Your task to perform on an android device: clear all cookies in the chrome app Image 0: 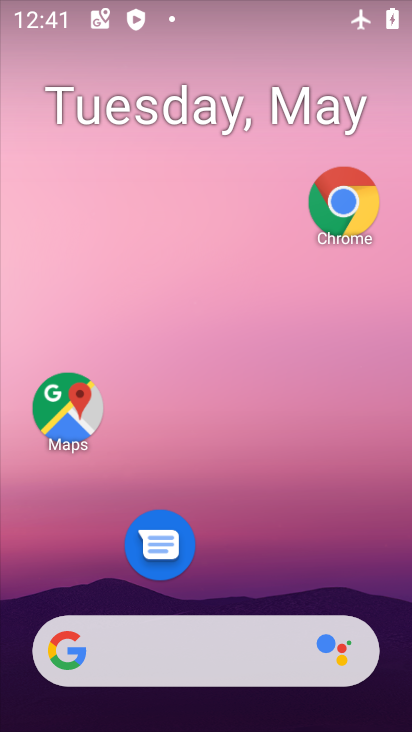
Step 0: click (350, 203)
Your task to perform on an android device: clear all cookies in the chrome app Image 1: 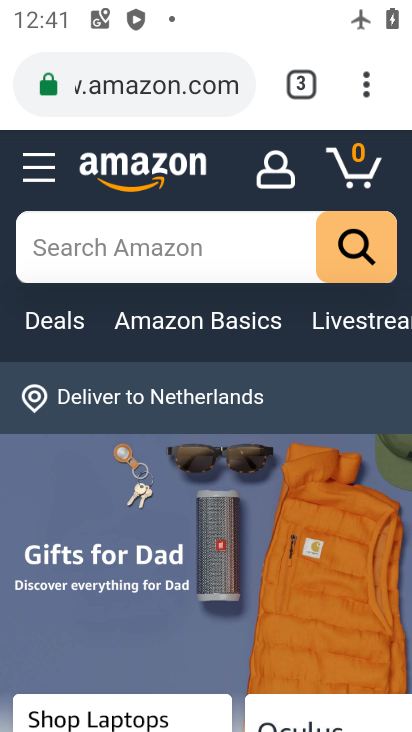
Step 1: click (356, 85)
Your task to perform on an android device: clear all cookies in the chrome app Image 2: 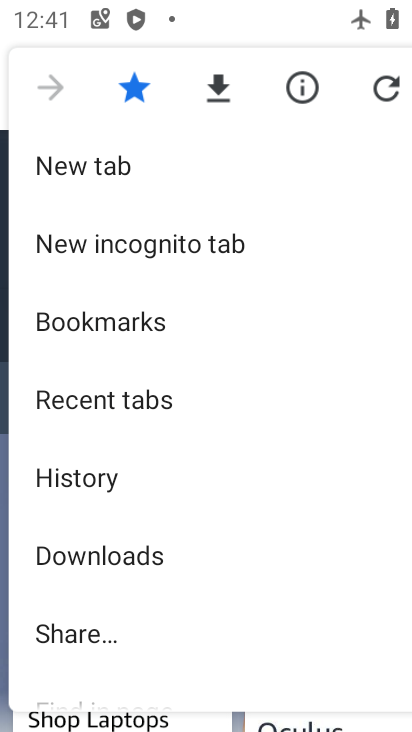
Step 2: click (55, 464)
Your task to perform on an android device: clear all cookies in the chrome app Image 3: 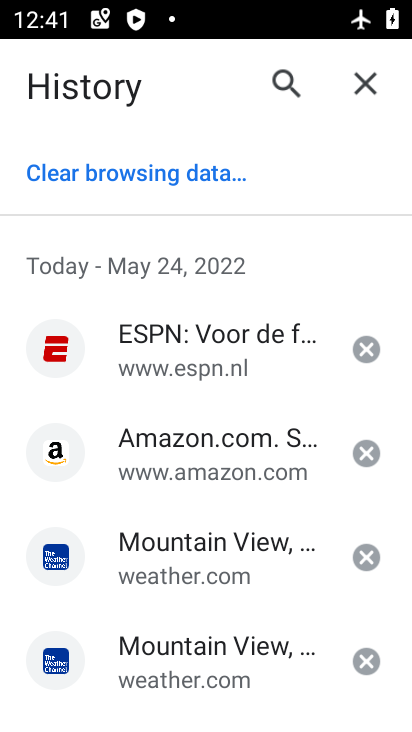
Step 3: click (98, 186)
Your task to perform on an android device: clear all cookies in the chrome app Image 4: 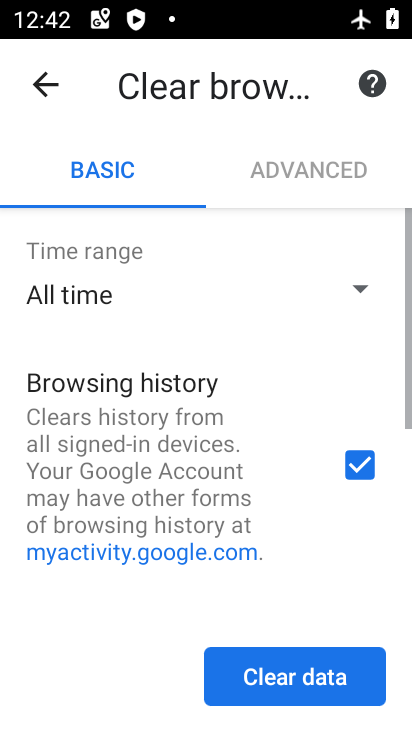
Step 4: click (212, 108)
Your task to perform on an android device: clear all cookies in the chrome app Image 5: 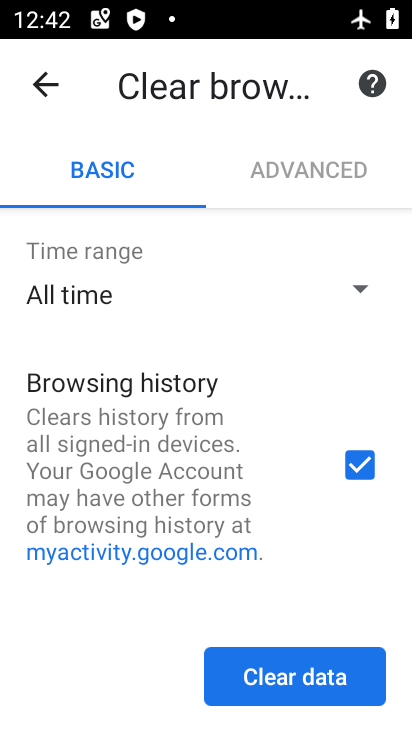
Step 5: click (362, 460)
Your task to perform on an android device: clear all cookies in the chrome app Image 6: 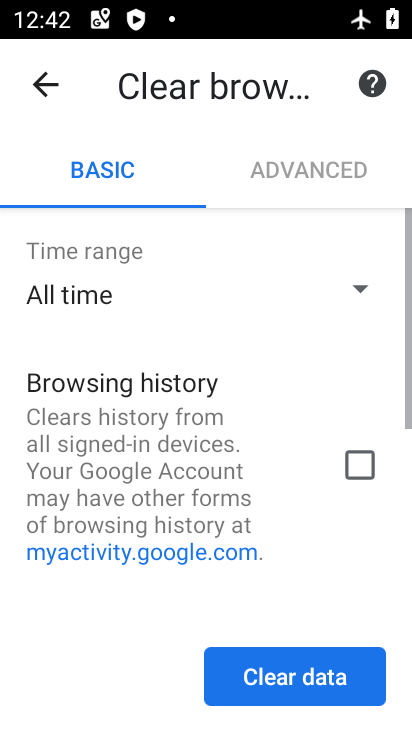
Step 6: drag from (306, 467) to (258, 105)
Your task to perform on an android device: clear all cookies in the chrome app Image 7: 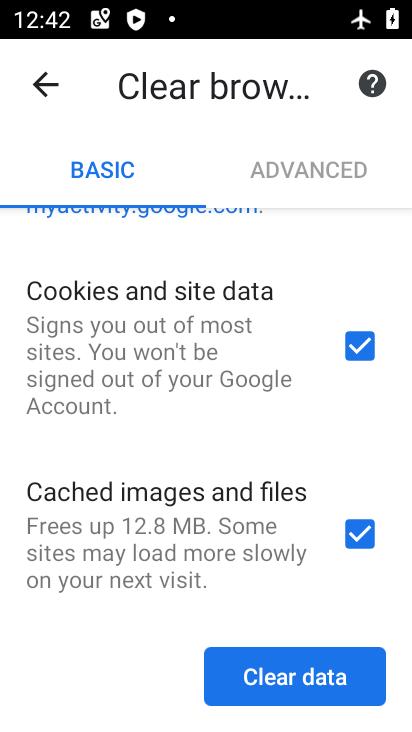
Step 7: click (366, 531)
Your task to perform on an android device: clear all cookies in the chrome app Image 8: 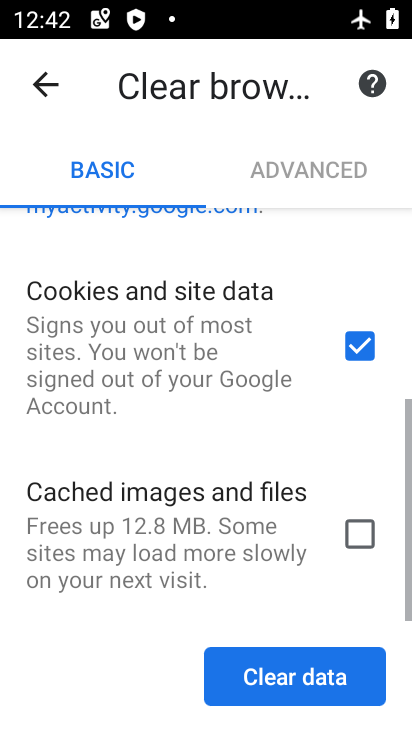
Step 8: click (272, 668)
Your task to perform on an android device: clear all cookies in the chrome app Image 9: 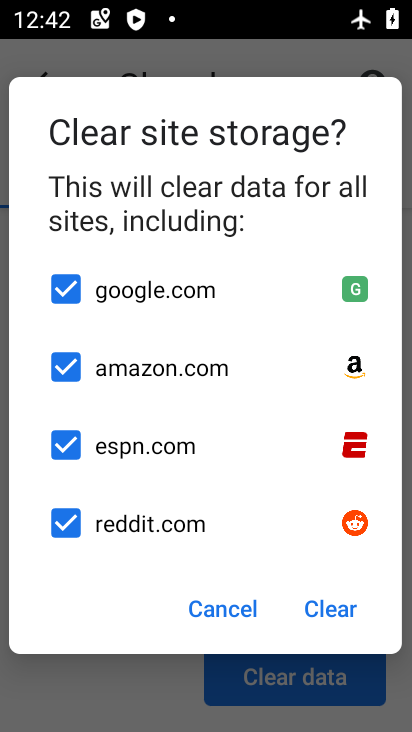
Step 9: click (345, 602)
Your task to perform on an android device: clear all cookies in the chrome app Image 10: 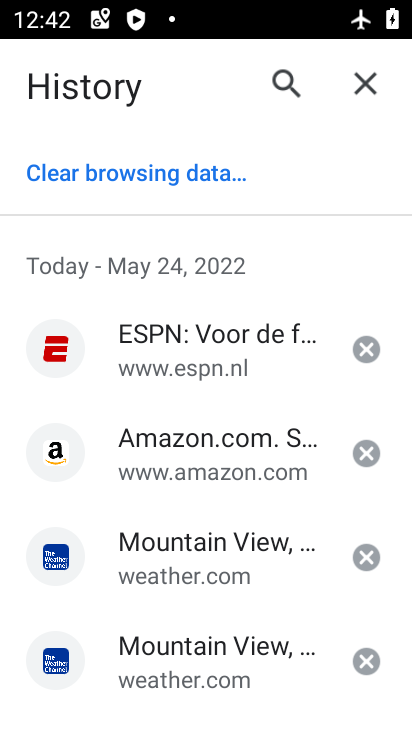
Step 10: task complete